Your task to perform on an android device: Search for sushi restaurants on Maps Image 0: 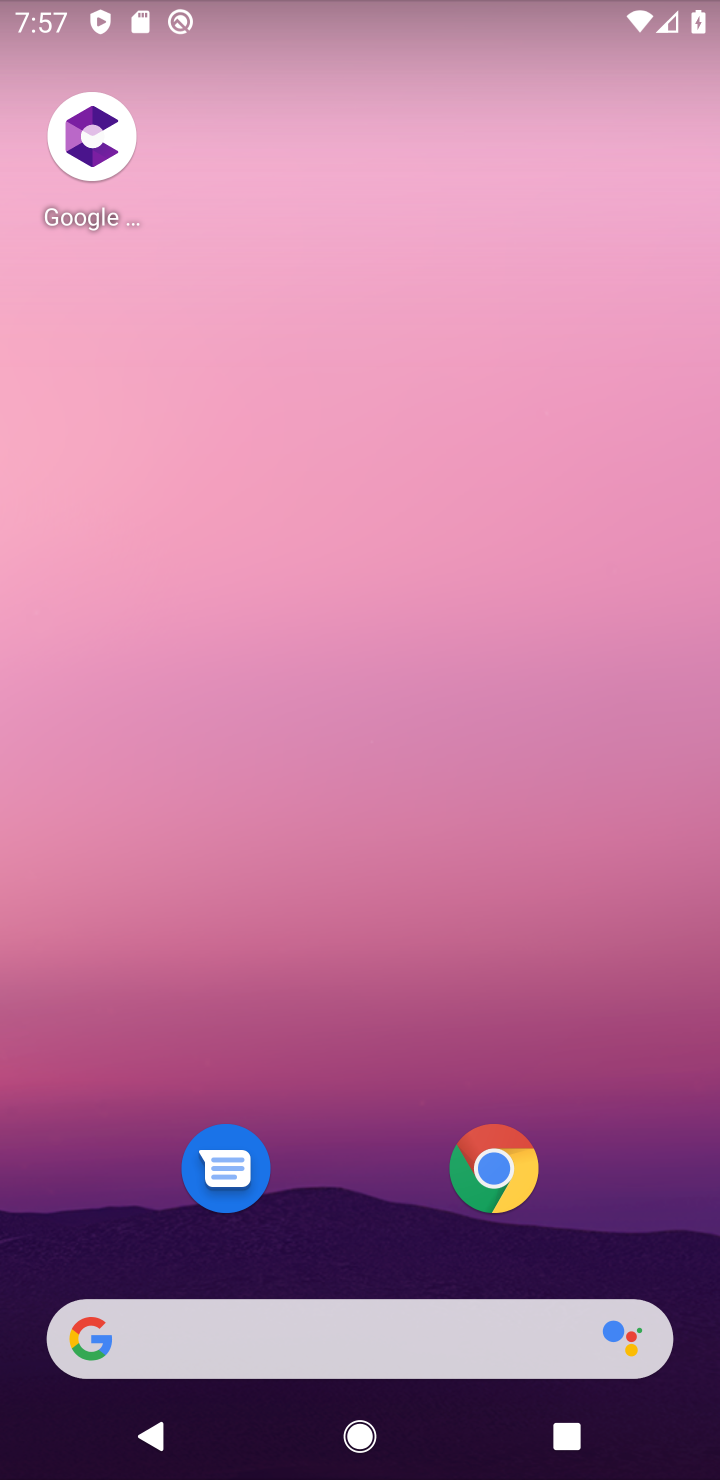
Step 0: drag from (313, 900) to (415, 128)
Your task to perform on an android device: Search for sushi restaurants on Maps Image 1: 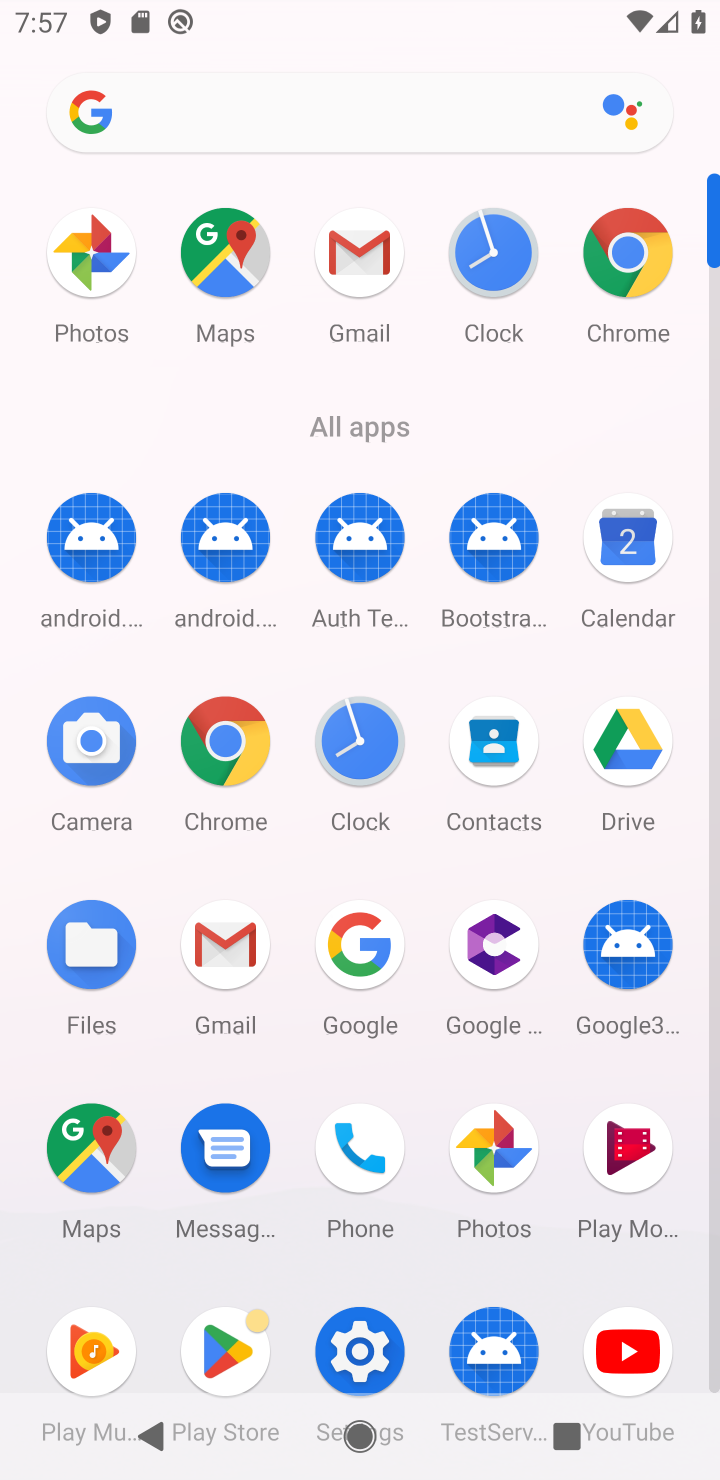
Step 1: click (243, 249)
Your task to perform on an android device: Search for sushi restaurants on Maps Image 2: 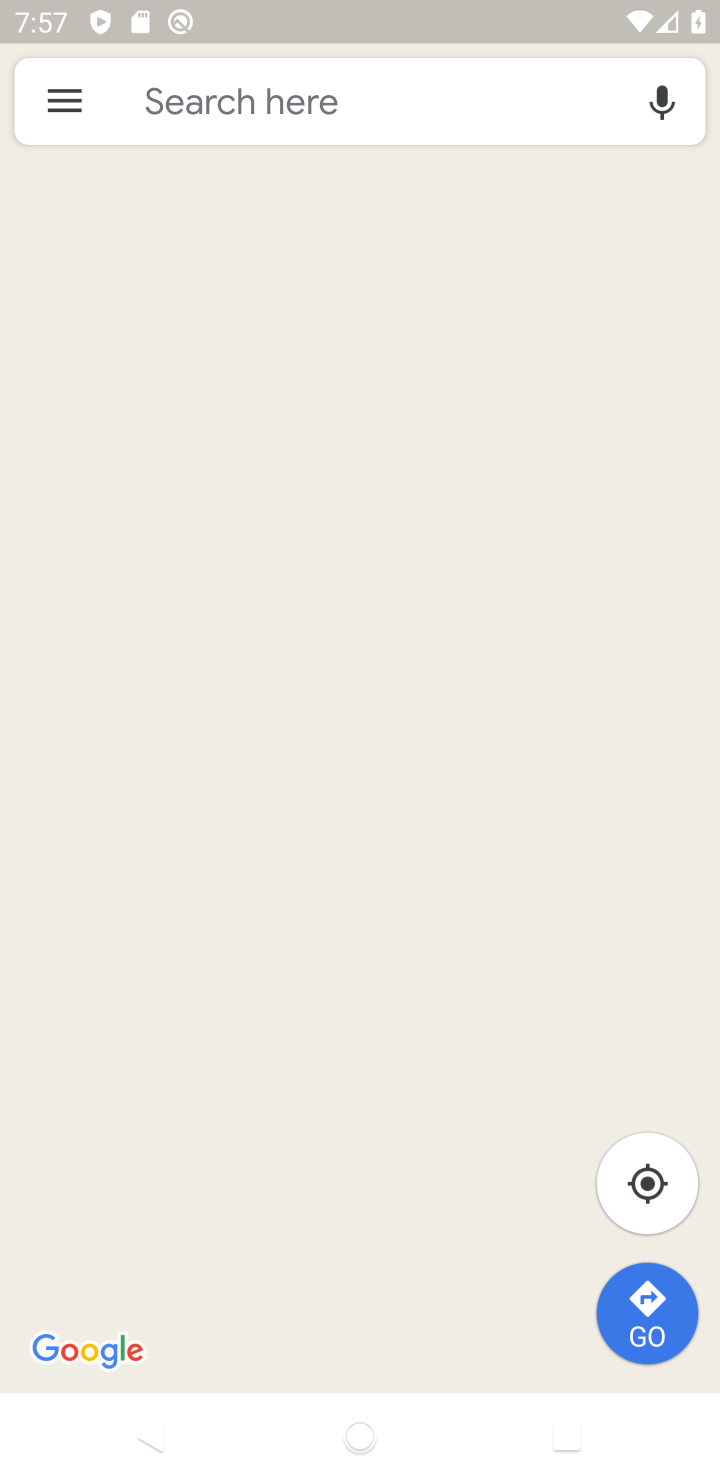
Step 2: click (298, 91)
Your task to perform on an android device: Search for sushi restaurants on Maps Image 3: 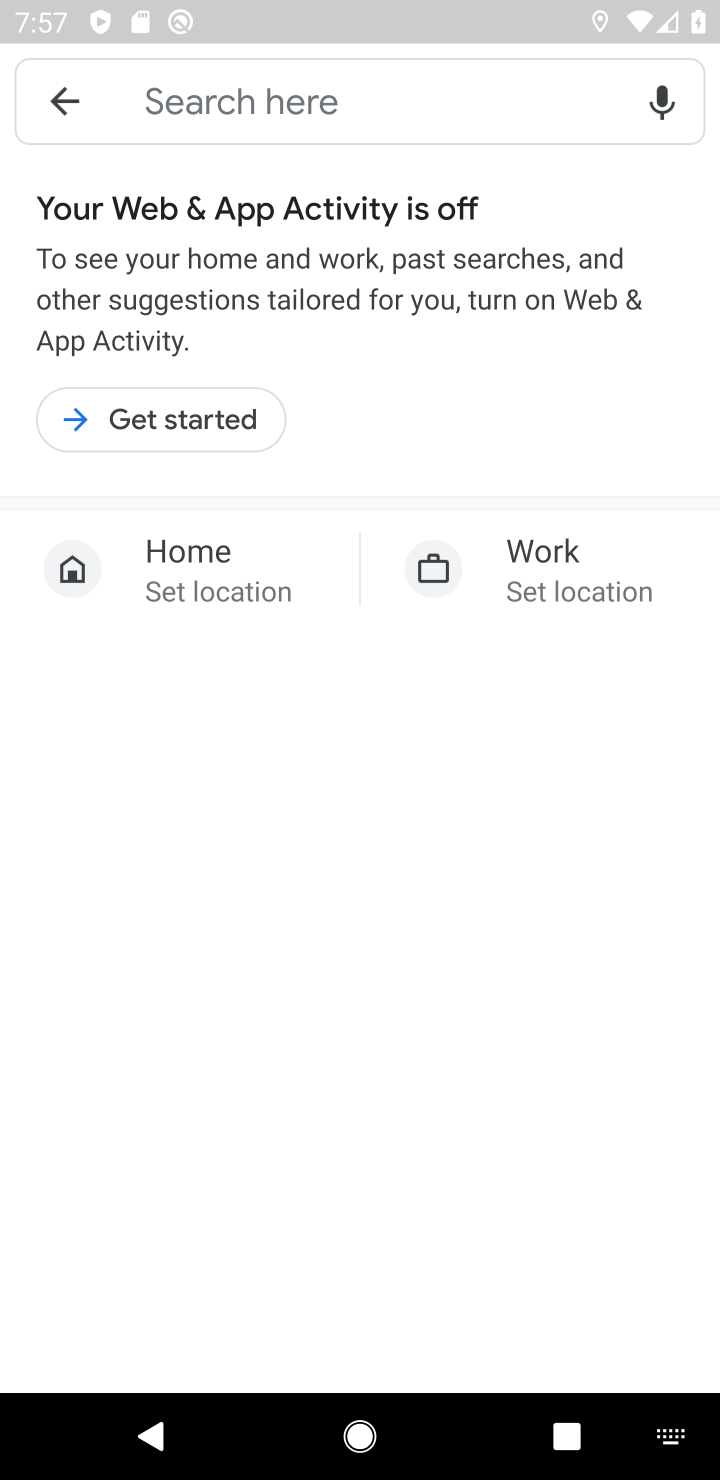
Step 3: type "sushi restaurants"
Your task to perform on an android device: Search for sushi restaurants on Maps Image 4: 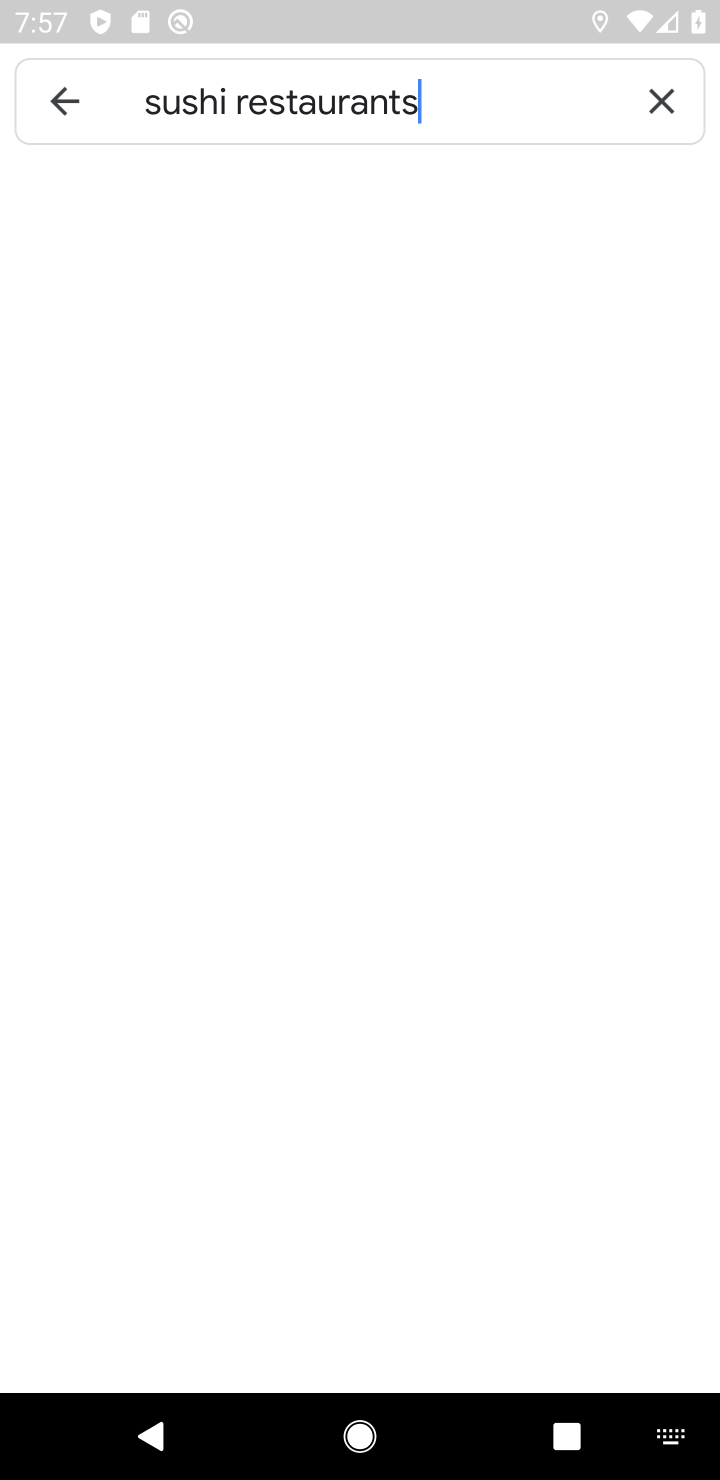
Step 4: press enter
Your task to perform on an android device: Search for sushi restaurants on Maps Image 5: 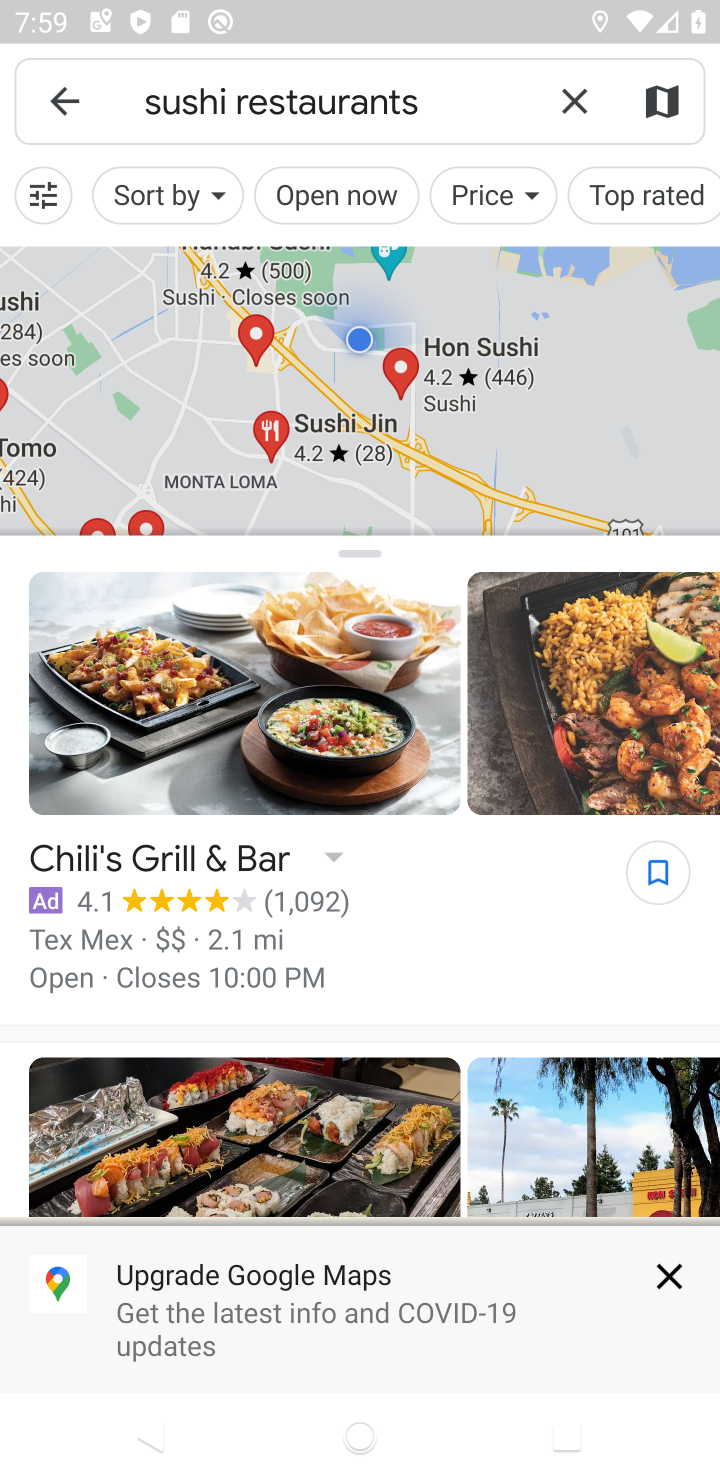
Step 5: task complete